Your task to perform on an android device: Go to ESPN.com Image 0: 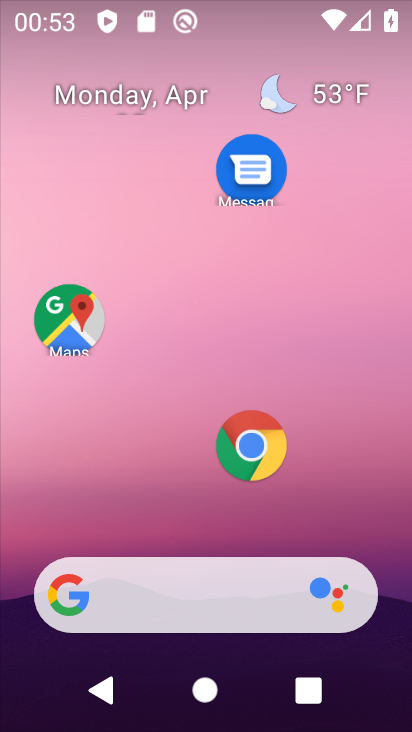
Step 0: click (273, 442)
Your task to perform on an android device: Go to ESPN.com Image 1: 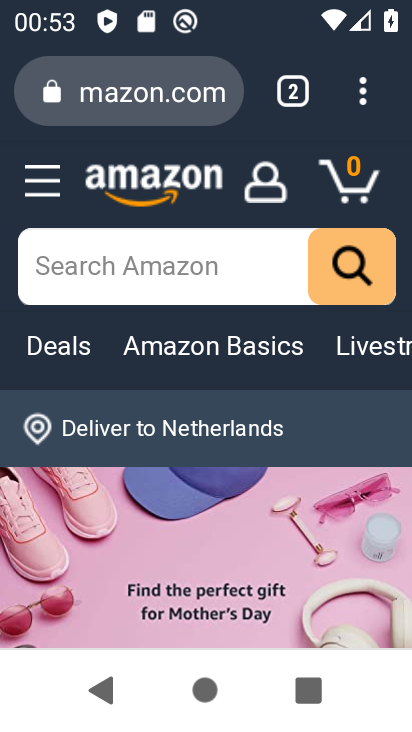
Step 1: click (166, 96)
Your task to perform on an android device: Go to ESPN.com Image 2: 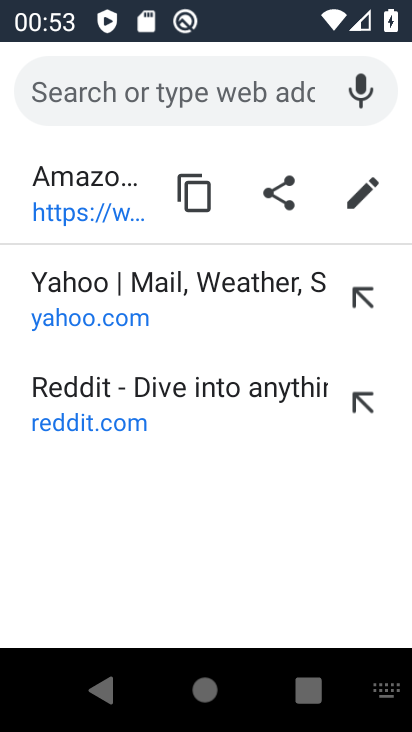
Step 2: type "ESPN.com"
Your task to perform on an android device: Go to ESPN.com Image 3: 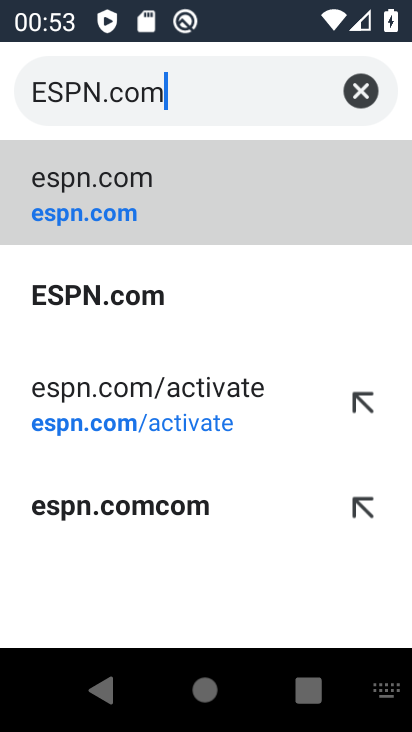
Step 3: click (192, 201)
Your task to perform on an android device: Go to ESPN.com Image 4: 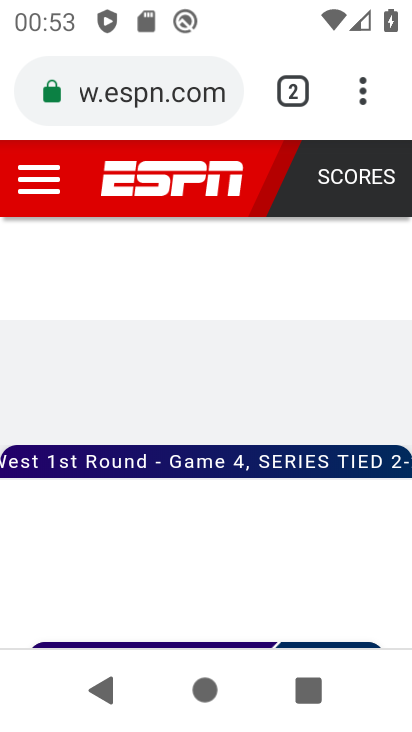
Step 4: task complete